Your task to perform on an android device: Find coffee shops on Maps Image 0: 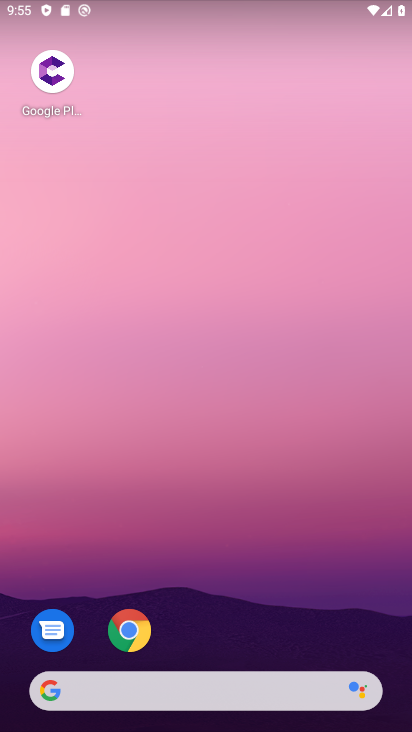
Step 0: drag from (198, 632) to (203, 196)
Your task to perform on an android device: Find coffee shops on Maps Image 1: 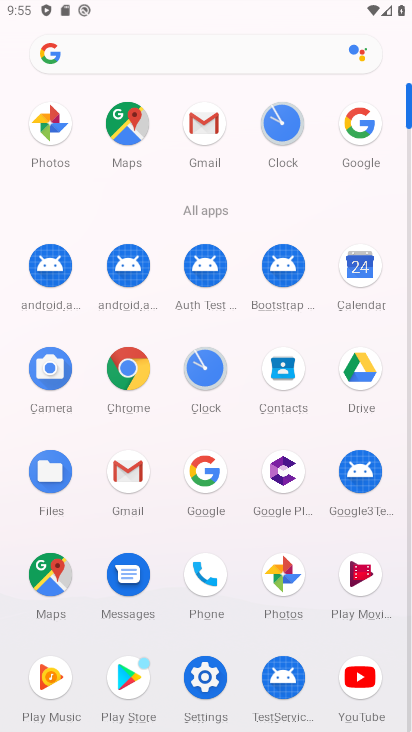
Step 1: click (121, 130)
Your task to perform on an android device: Find coffee shops on Maps Image 2: 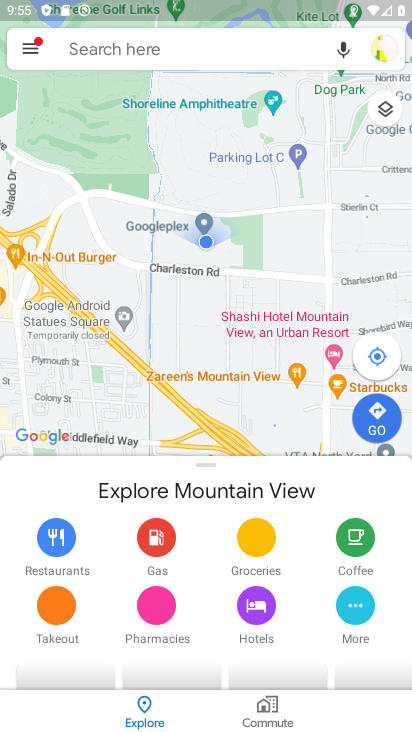
Step 2: click (146, 52)
Your task to perform on an android device: Find coffee shops on Maps Image 3: 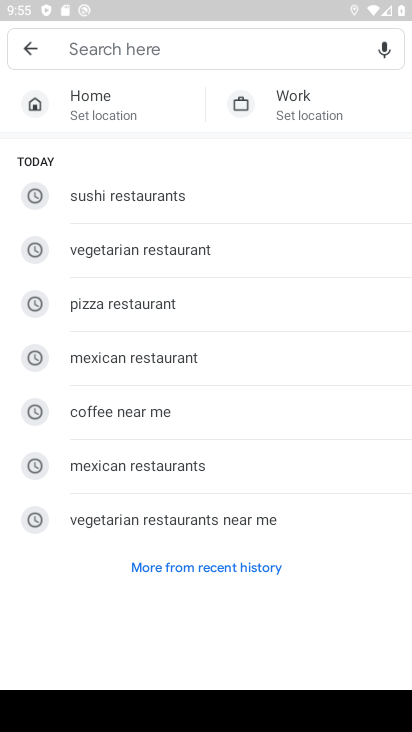
Step 3: type "coffee shops"
Your task to perform on an android device: Find coffee shops on Maps Image 4: 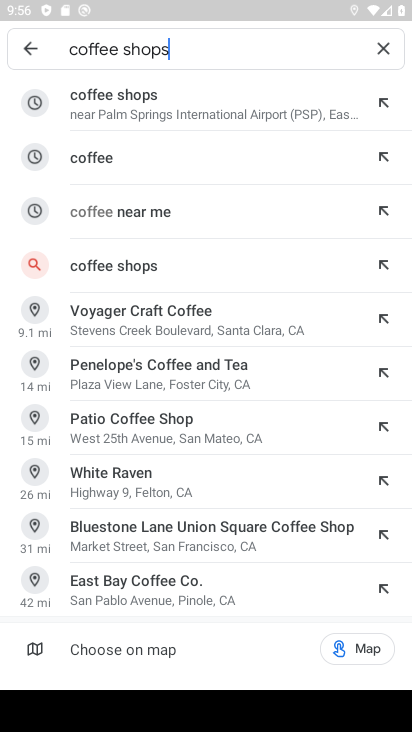
Step 4: click (165, 109)
Your task to perform on an android device: Find coffee shops on Maps Image 5: 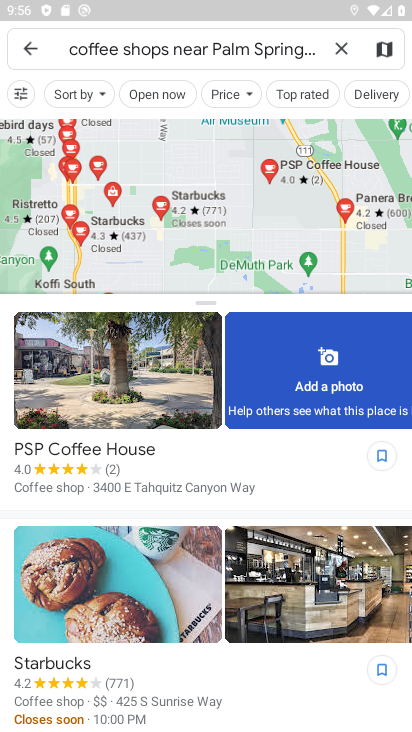
Step 5: task complete